Your task to perform on an android device: turn on data saver in the chrome app Image 0: 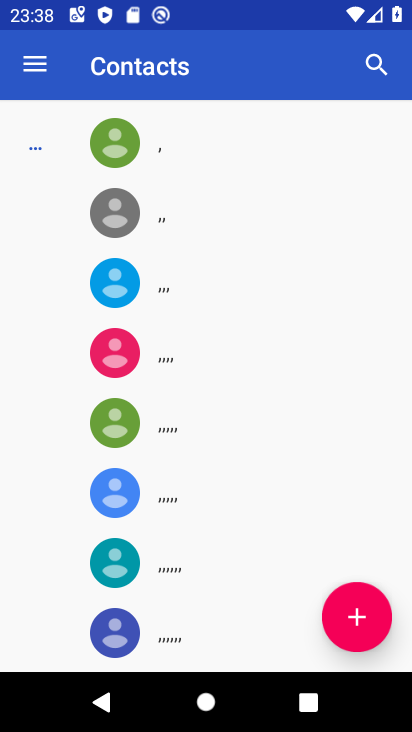
Step 0: press home button
Your task to perform on an android device: turn on data saver in the chrome app Image 1: 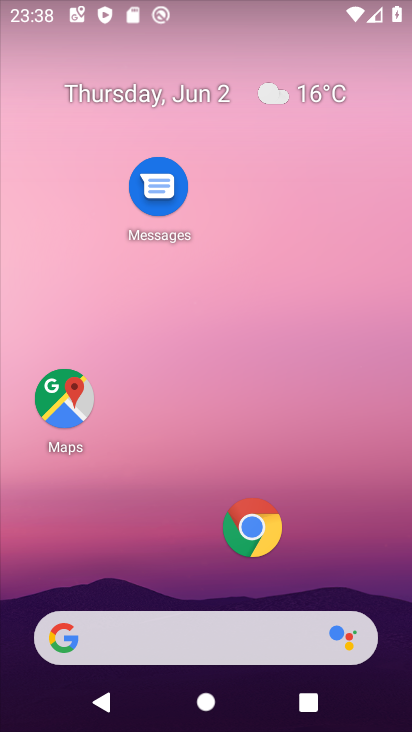
Step 1: click (250, 521)
Your task to perform on an android device: turn on data saver in the chrome app Image 2: 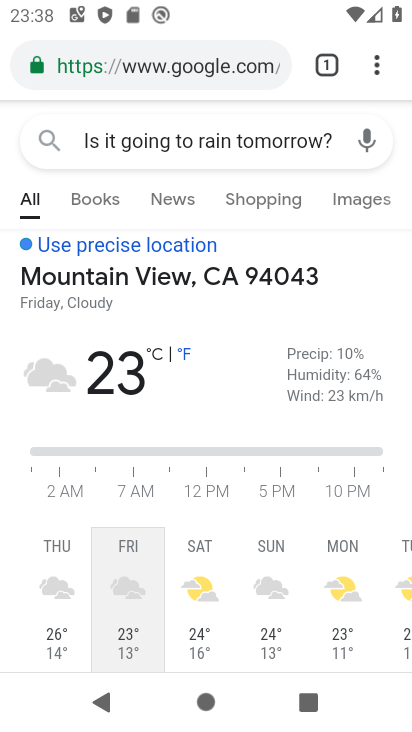
Step 2: click (378, 59)
Your task to perform on an android device: turn on data saver in the chrome app Image 3: 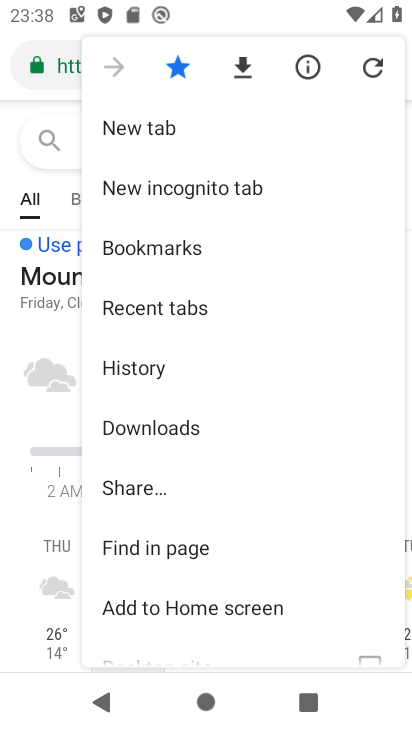
Step 3: drag from (259, 585) to (310, 160)
Your task to perform on an android device: turn on data saver in the chrome app Image 4: 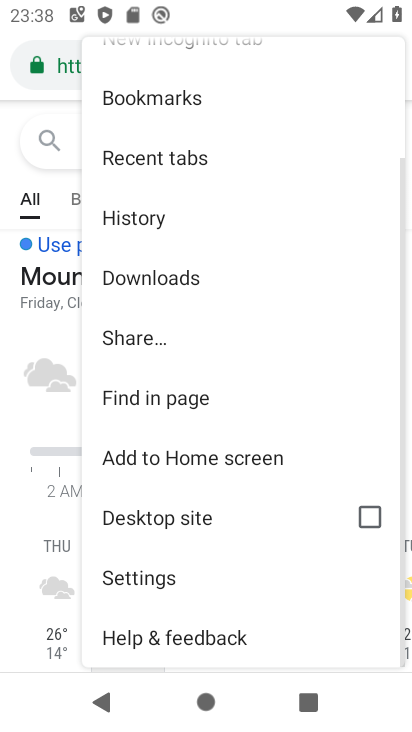
Step 4: click (181, 570)
Your task to perform on an android device: turn on data saver in the chrome app Image 5: 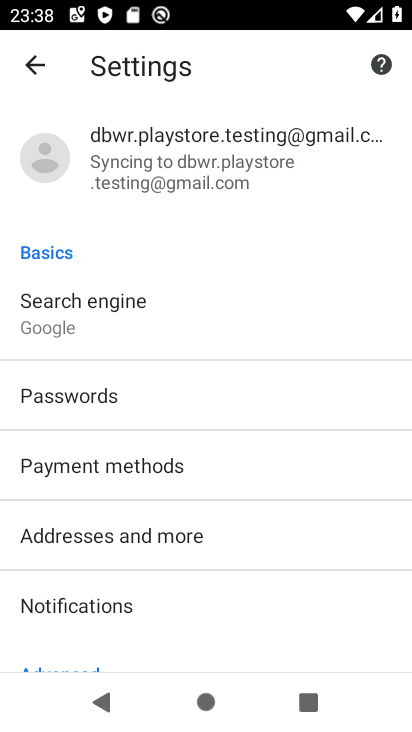
Step 5: drag from (206, 628) to (248, 179)
Your task to perform on an android device: turn on data saver in the chrome app Image 6: 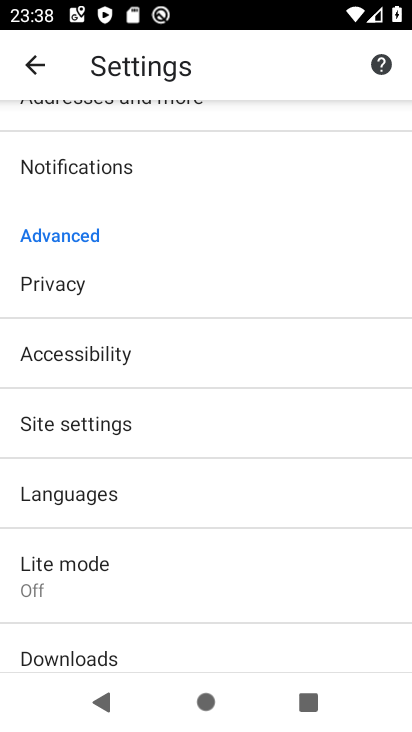
Step 6: click (98, 586)
Your task to perform on an android device: turn on data saver in the chrome app Image 7: 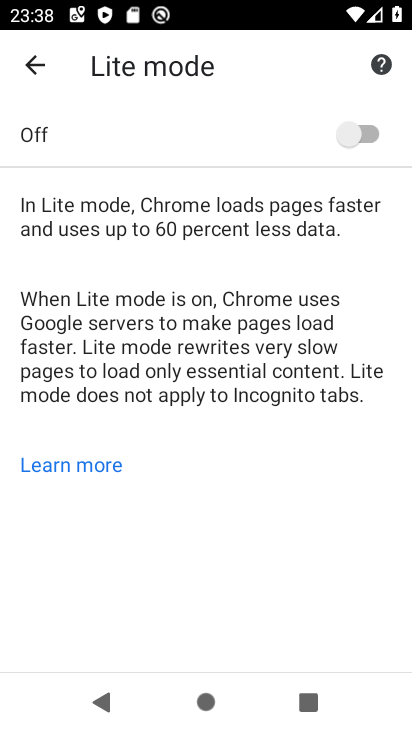
Step 7: click (365, 127)
Your task to perform on an android device: turn on data saver in the chrome app Image 8: 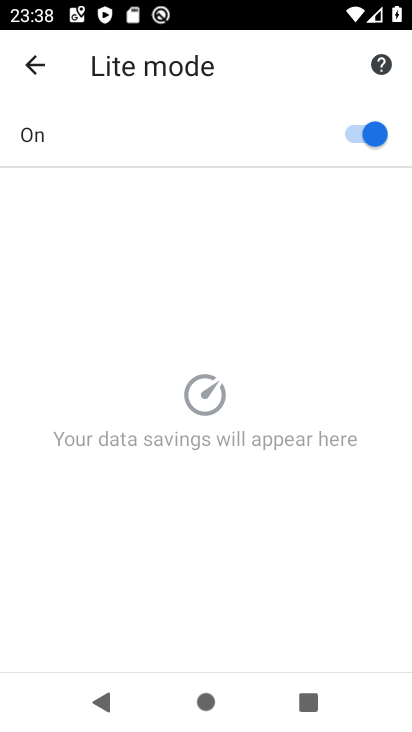
Step 8: task complete